Your task to perform on an android device: find snoozed emails in the gmail app Image 0: 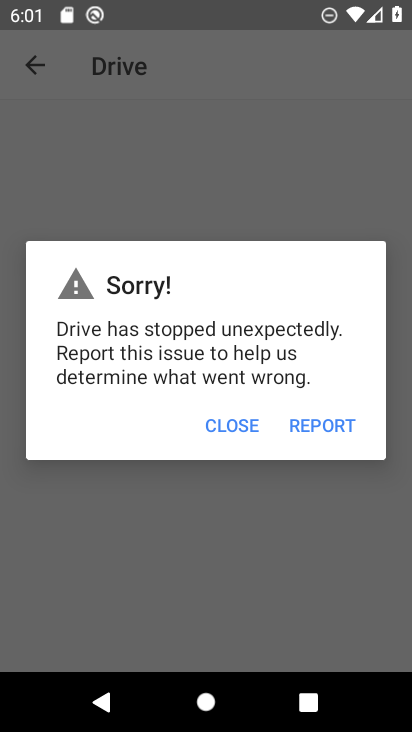
Step 0: press home button
Your task to perform on an android device: find snoozed emails in the gmail app Image 1: 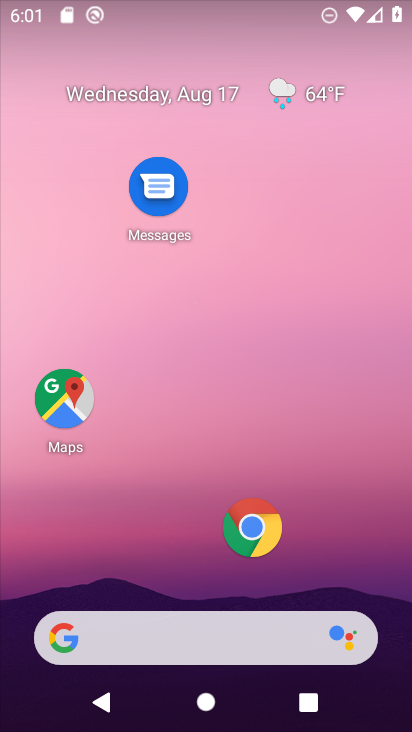
Step 1: click (153, 249)
Your task to perform on an android device: find snoozed emails in the gmail app Image 2: 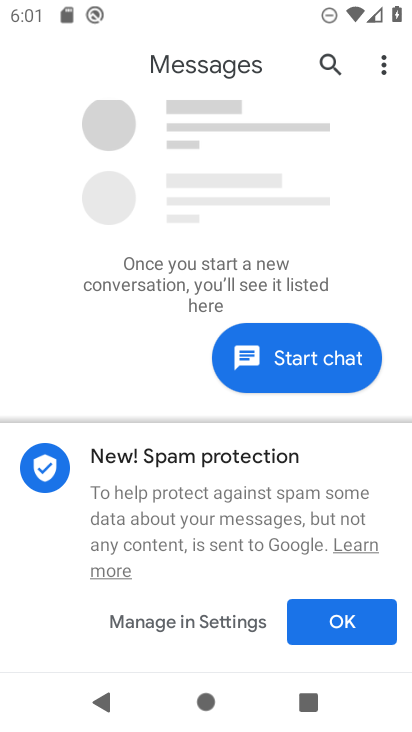
Step 2: press home button
Your task to perform on an android device: find snoozed emails in the gmail app Image 3: 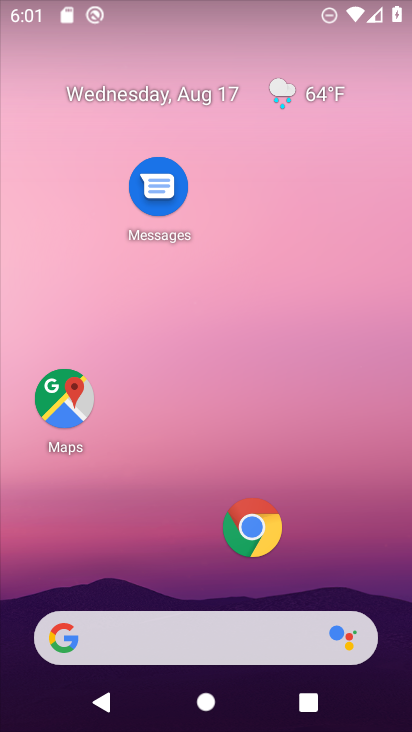
Step 3: drag from (202, 575) to (202, 229)
Your task to perform on an android device: find snoozed emails in the gmail app Image 4: 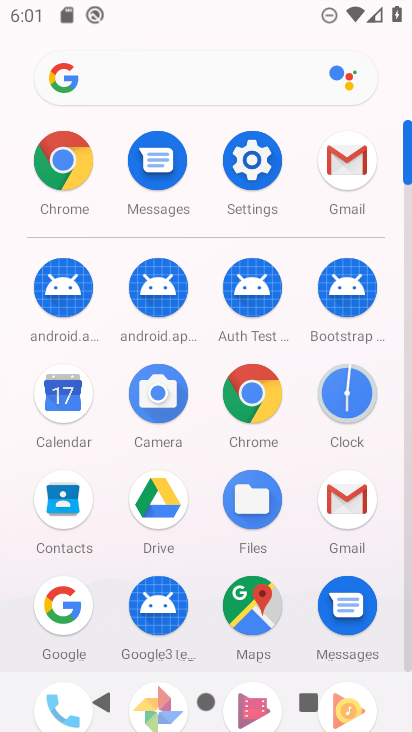
Step 4: click (334, 176)
Your task to perform on an android device: find snoozed emails in the gmail app Image 5: 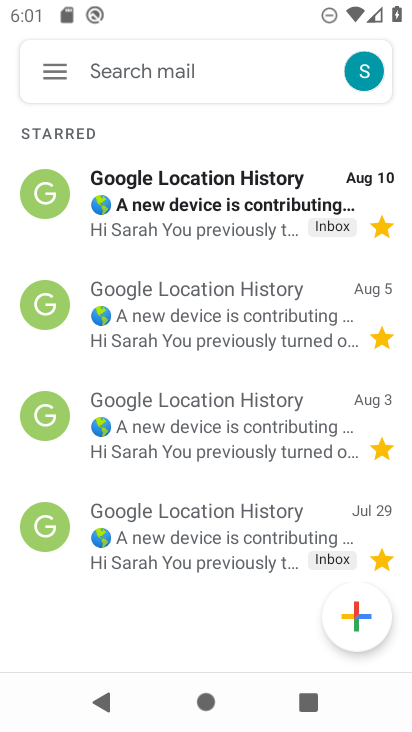
Step 5: click (58, 66)
Your task to perform on an android device: find snoozed emails in the gmail app Image 6: 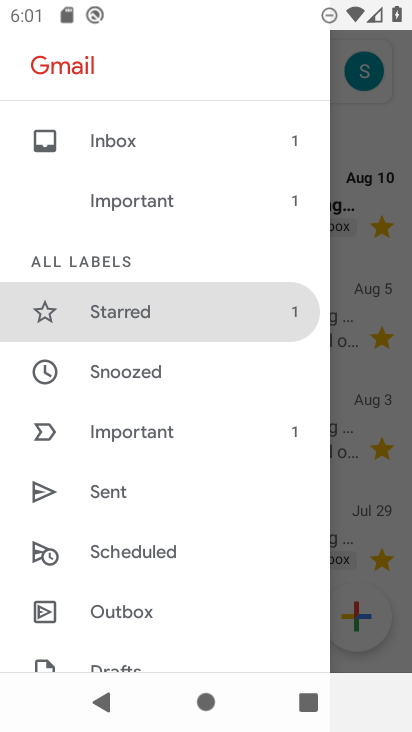
Step 6: click (113, 374)
Your task to perform on an android device: find snoozed emails in the gmail app Image 7: 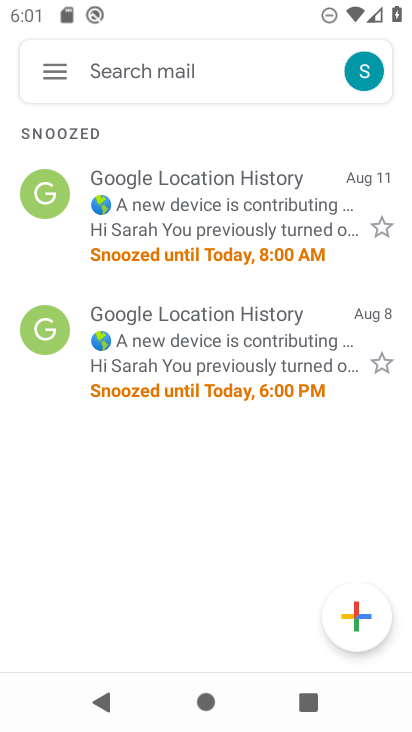
Step 7: task complete